Your task to perform on an android device: Open settings on Google Maps Image 0: 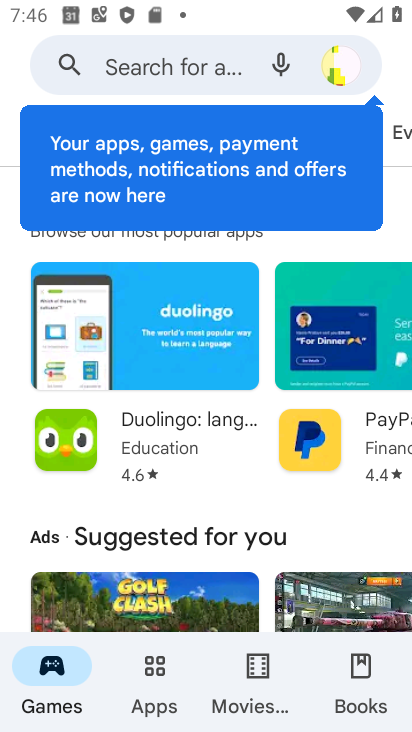
Step 0: press home button
Your task to perform on an android device: Open settings on Google Maps Image 1: 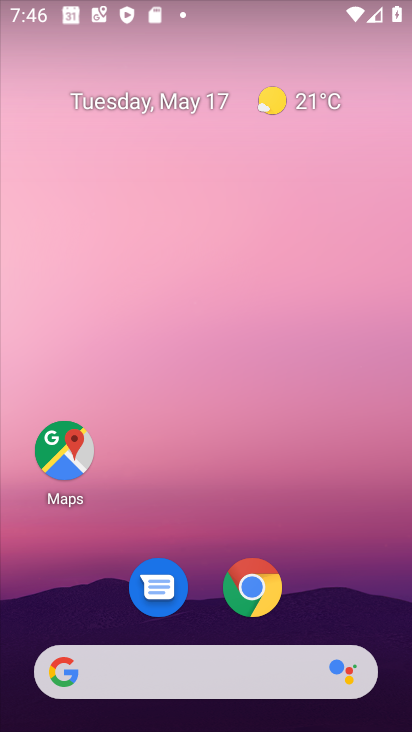
Step 1: drag from (343, 599) to (364, 214)
Your task to perform on an android device: Open settings on Google Maps Image 2: 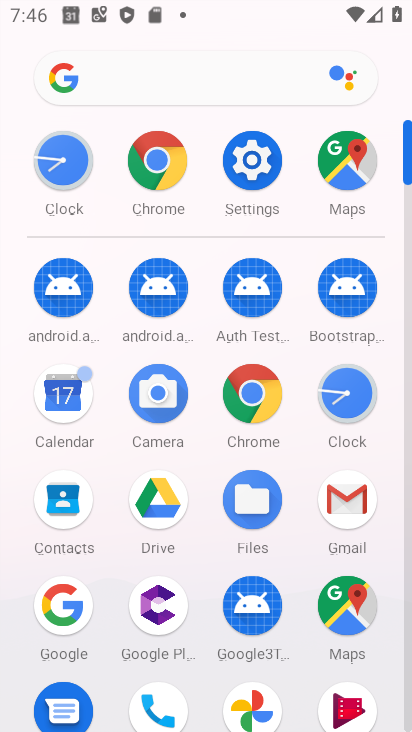
Step 2: click (352, 611)
Your task to perform on an android device: Open settings on Google Maps Image 3: 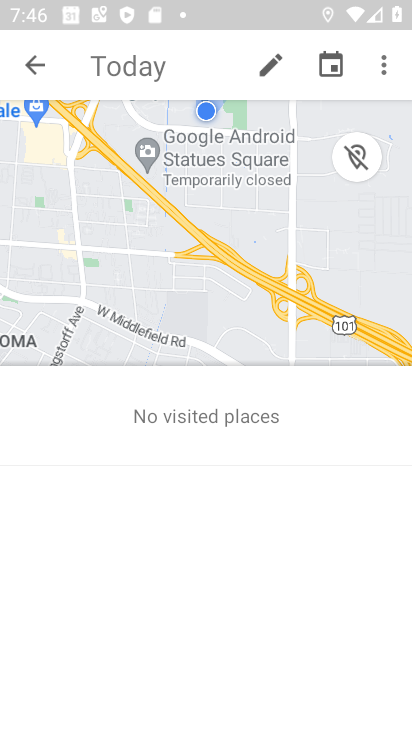
Step 3: task complete